Your task to perform on an android device: turn off data saver in the chrome app Image 0: 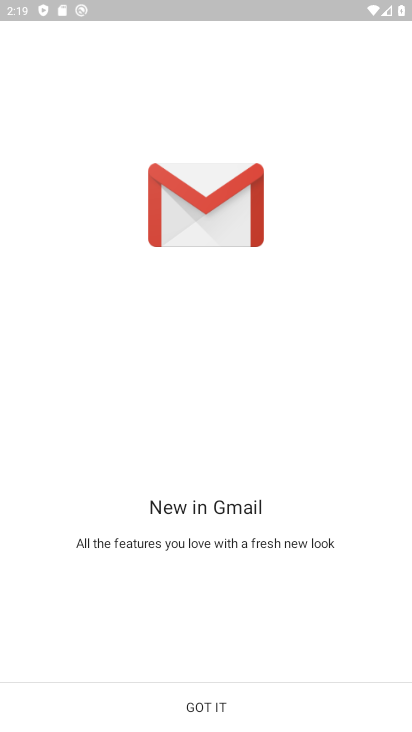
Step 0: press home button
Your task to perform on an android device: turn off data saver in the chrome app Image 1: 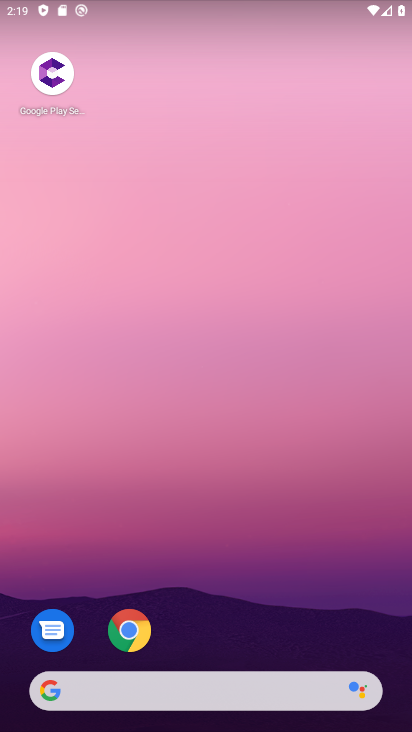
Step 1: click (133, 632)
Your task to perform on an android device: turn off data saver in the chrome app Image 2: 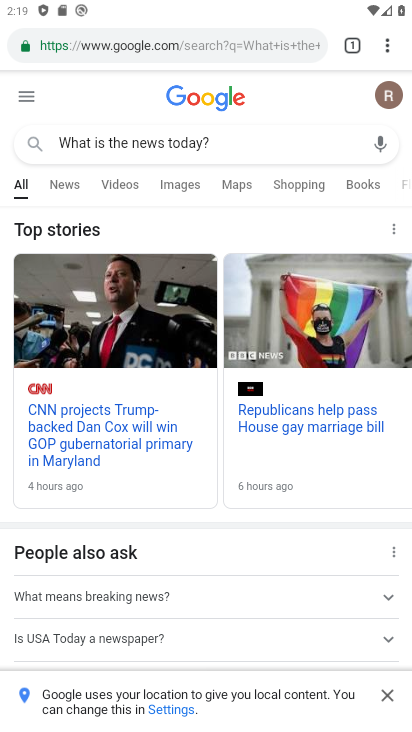
Step 2: click (390, 46)
Your task to perform on an android device: turn off data saver in the chrome app Image 3: 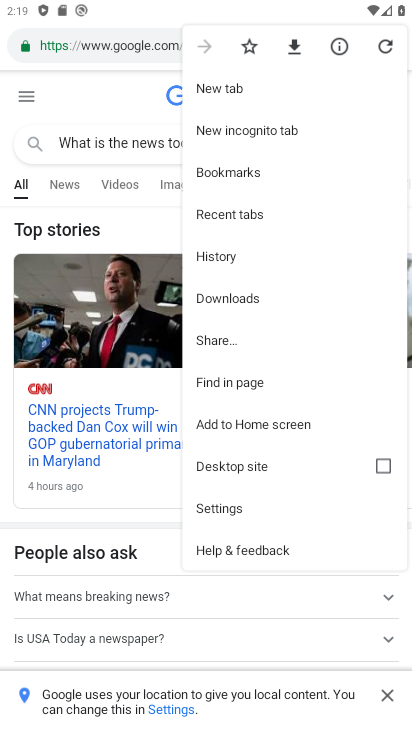
Step 3: click (271, 514)
Your task to perform on an android device: turn off data saver in the chrome app Image 4: 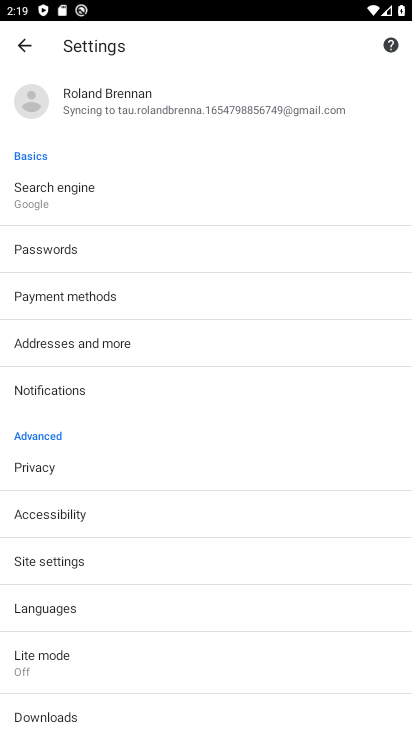
Step 4: click (201, 661)
Your task to perform on an android device: turn off data saver in the chrome app Image 5: 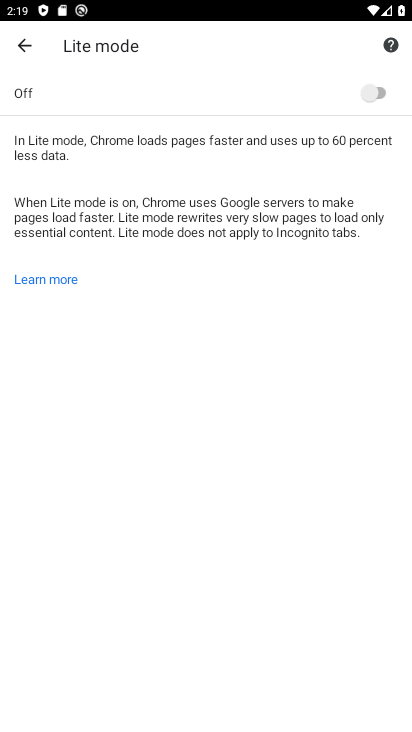
Step 5: task complete